Your task to perform on an android device: turn smart compose on in the gmail app Image 0: 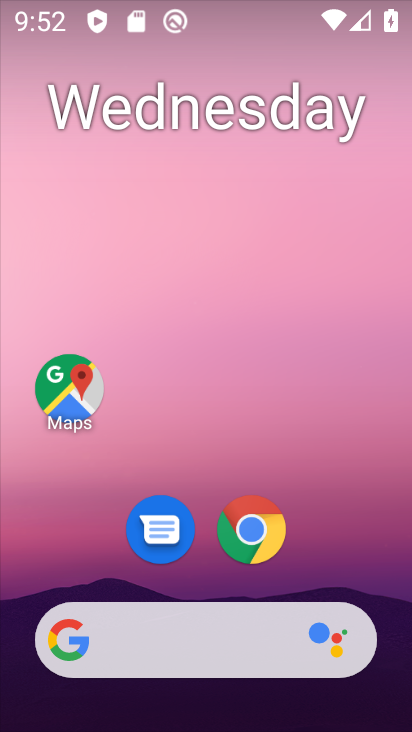
Step 0: drag from (248, 566) to (247, 154)
Your task to perform on an android device: turn smart compose on in the gmail app Image 1: 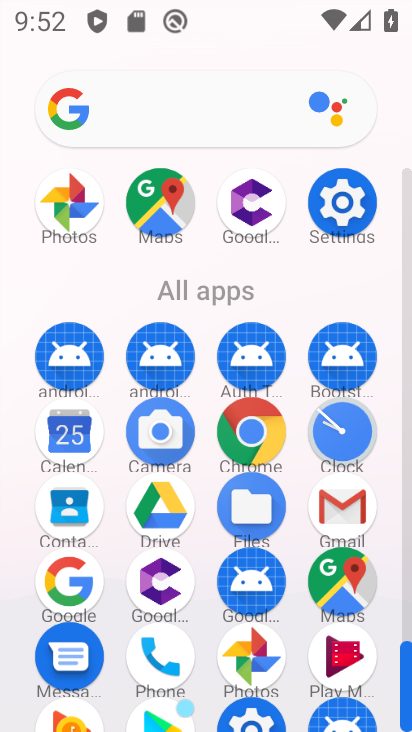
Step 1: drag from (309, 301) to (280, 194)
Your task to perform on an android device: turn smart compose on in the gmail app Image 2: 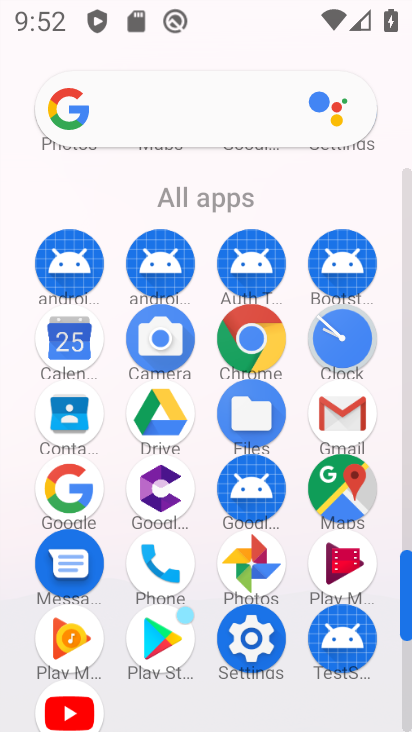
Step 2: click (339, 416)
Your task to perform on an android device: turn smart compose on in the gmail app Image 3: 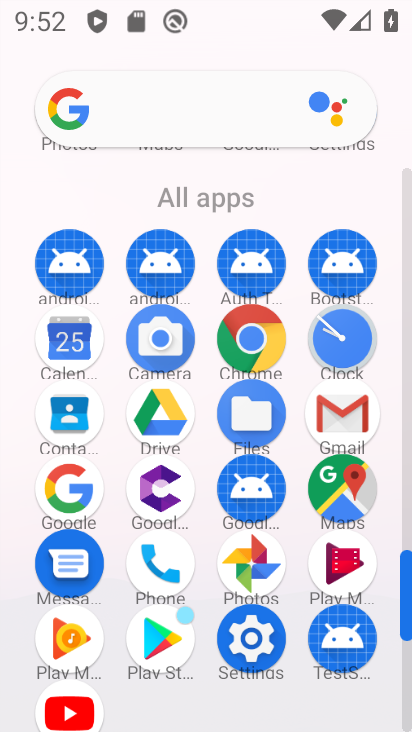
Step 3: click (338, 417)
Your task to perform on an android device: turn smart compose on in the gmail app Image 4: 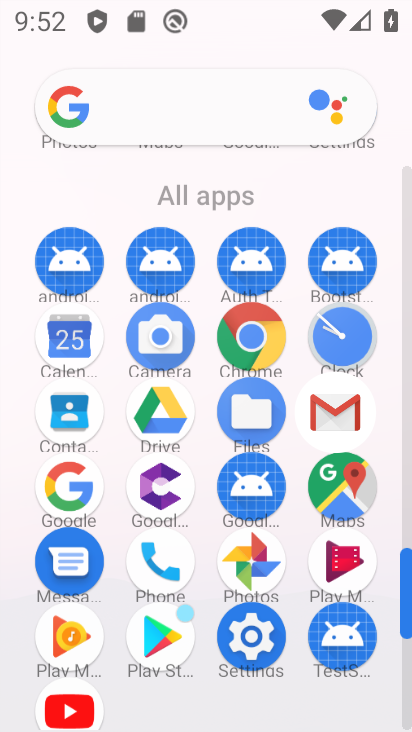
Step 4: click (338, 414)
Your task to perform on an android device: turn smart compose on in the gmail app Image 5: 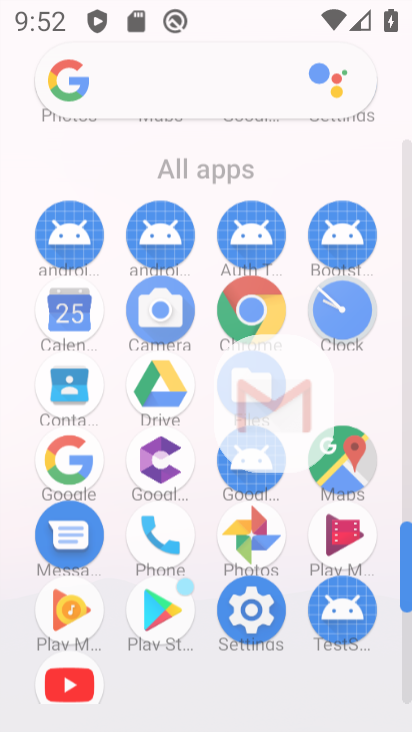
Step 5: click (338, 414)
Your task to perform on an android device: turn smart compose on in the gmail app Image 6: 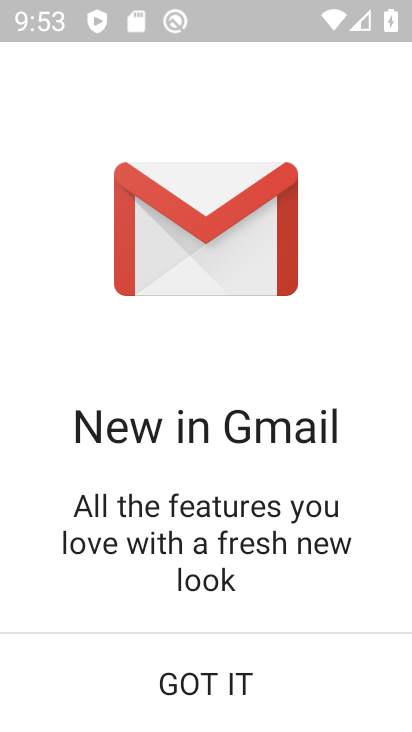
Step 6: click (215, 693)
Your task to perform on an android device: turn smart compose on in the gmail app Image 7: 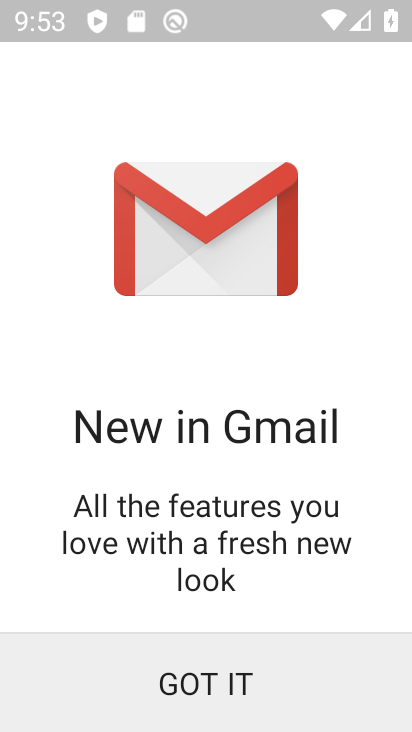
Step 7: click (215, 688)
Your task to perform on an android device: turn smart compose on in the gmail app Image 8: 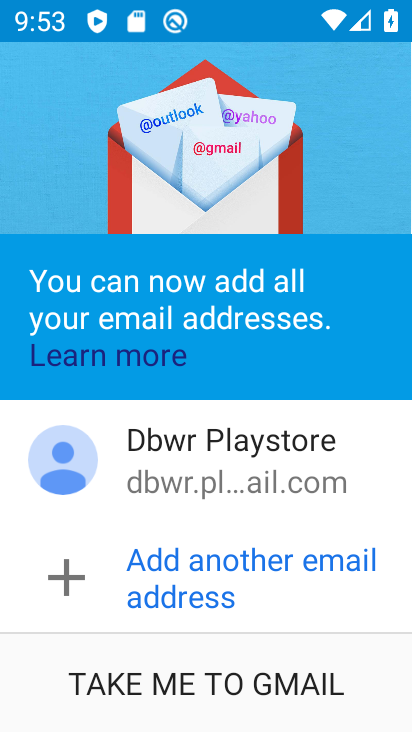
Step 8: click (215, 671)
Your task to perform on an android device: turn smart compose on in the gmail app Image 9: 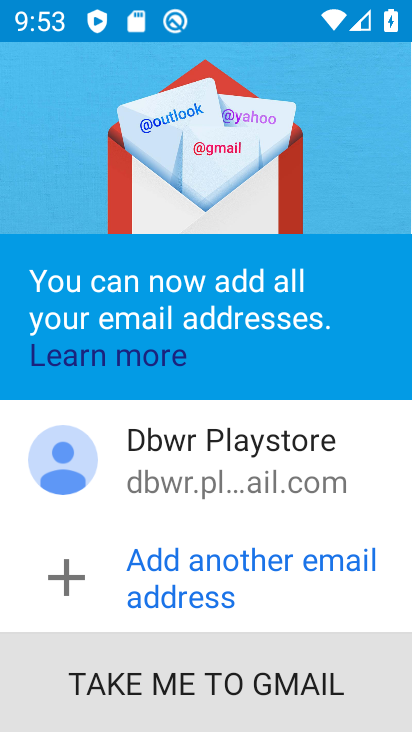
Step 9: click (214, 672)
Your task to perform on an android device: turn smart compose on in the gmail app Image 10: 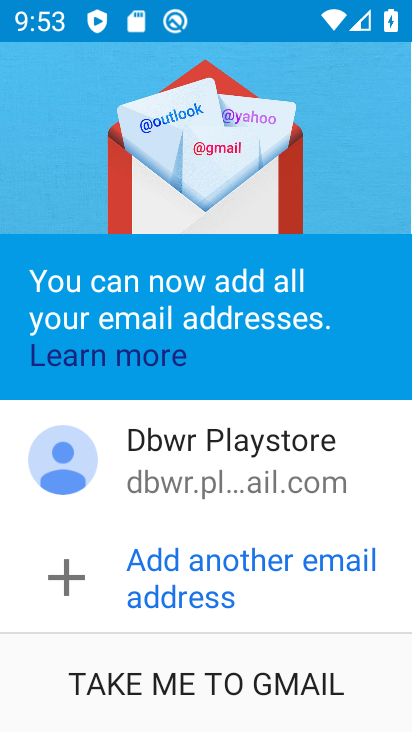
Step 10: click (213, 665)
Your task to perform on an android device: turn smart compose on in the gmail app Image 11: 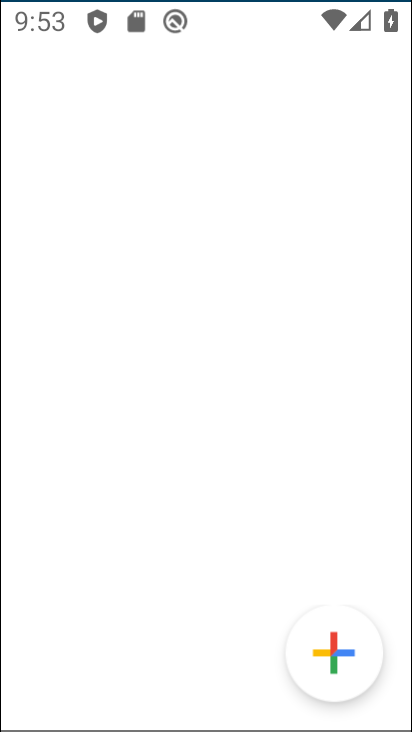
Step 11: click (213, 665)
Your task to perform on an android device: turn smart compose on in the gmail app Image 12: 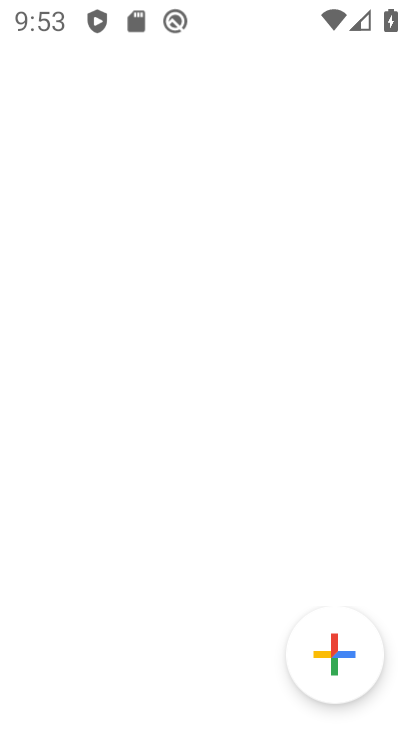
Step 12: click (213, 665)
Your task to perform on an android device: turn smart compose on in the gmail app Image 13: 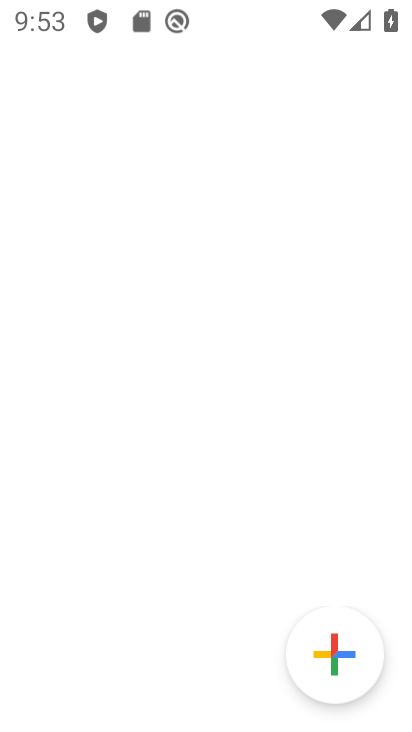
Step 13: click (213, 665)
Your task to perform on an android device: turn smart compose on in the gmail app Image 14: 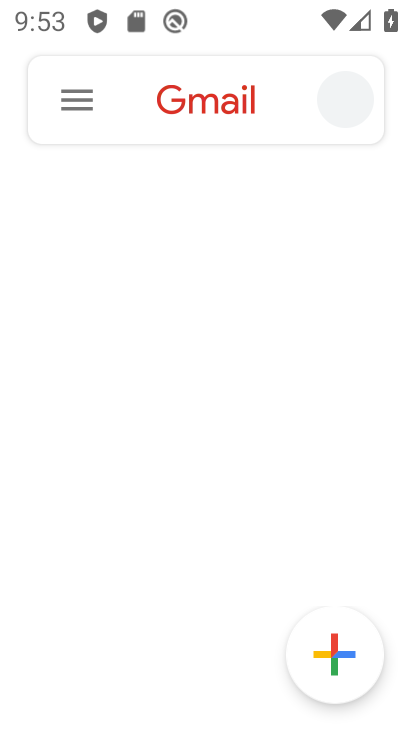
Step 14: click (213, 665)
Your task to perform on an android device: turn smart compose on in the gmail app Image 15: 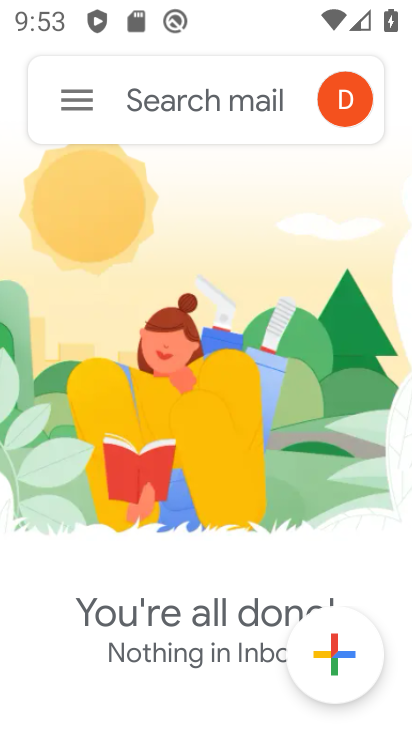
Step 15: press back button
Your task to perform on an android device: turn smart compose on in the gmail app Image 16: 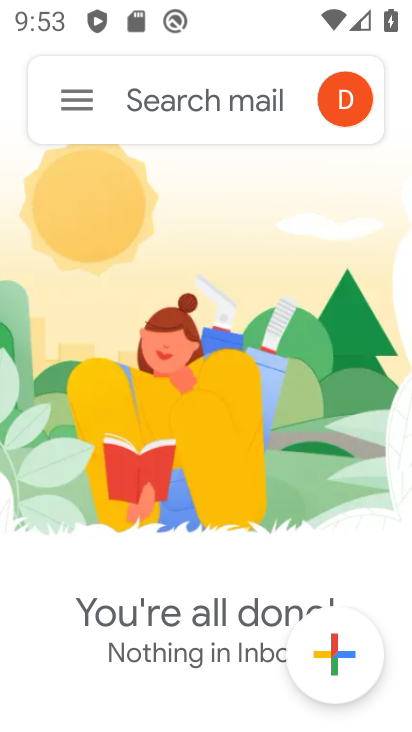
Step 16: press back button
Your task to perform on an android device: turn smart compose on in the gmail app Image 17: 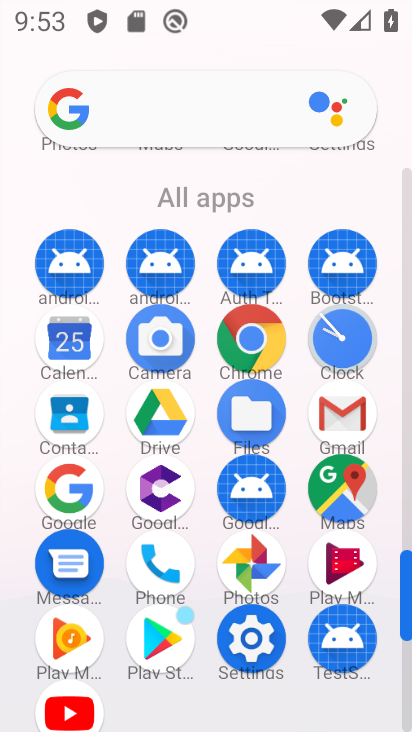
Step 17: press back button
Your task to perform on an android device: turn smart compose on in the gmail app Image 18: 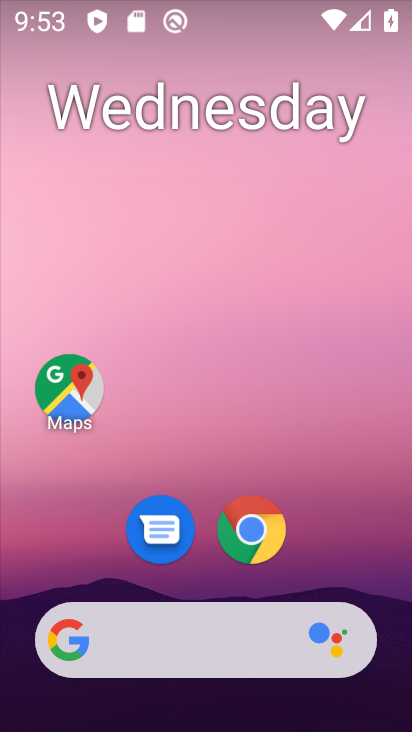
Step 18: drag from (231, 644) to (68, 109)
Your task to perform on an android device: turn smart compose on in the gmail app Image 19: 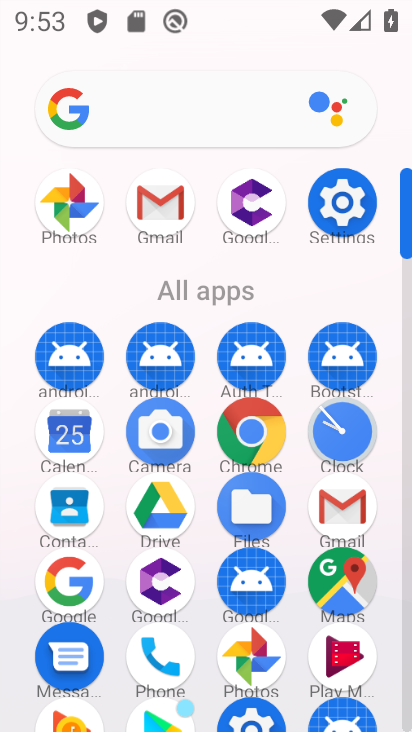
Step 19: click (357, 517)
Your task to perform on an android device: turn smart compose on in the gmail app Image 20: 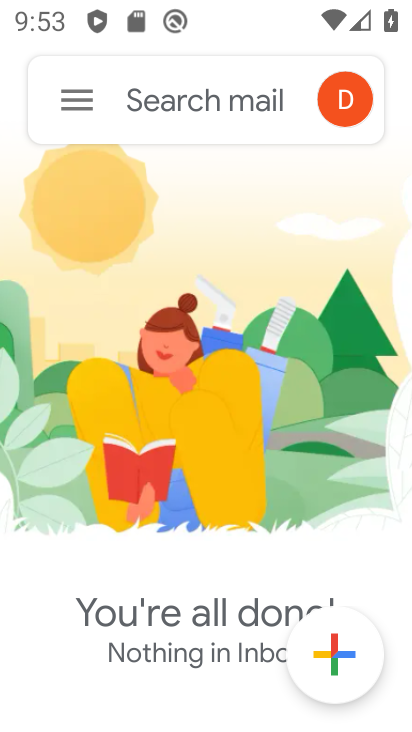
Step 20: press back button
Your task to perform on an android device: turn smart compose on in the gmail app Image 21: 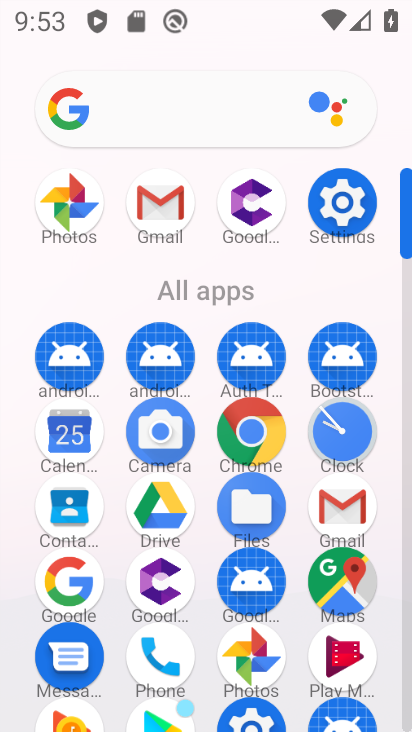
Step 21: click (355, 489)
Your task to perform on an android device: turn smart compose on in the gmail app Image 22: 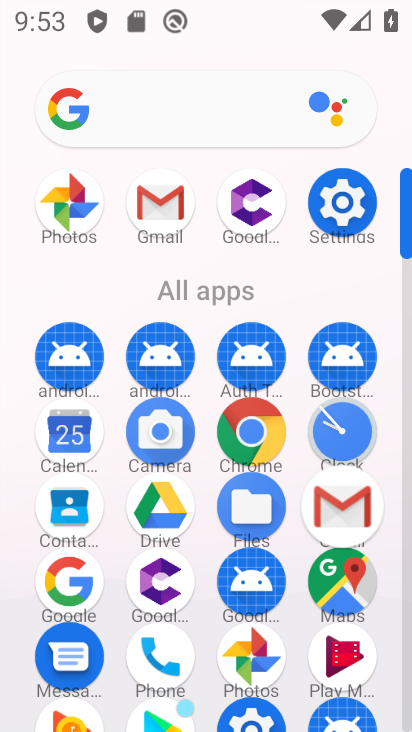
Step 22: click (355, 490)
Your task to perform on an android device: turn smart compose on in the gmail app Image 23: 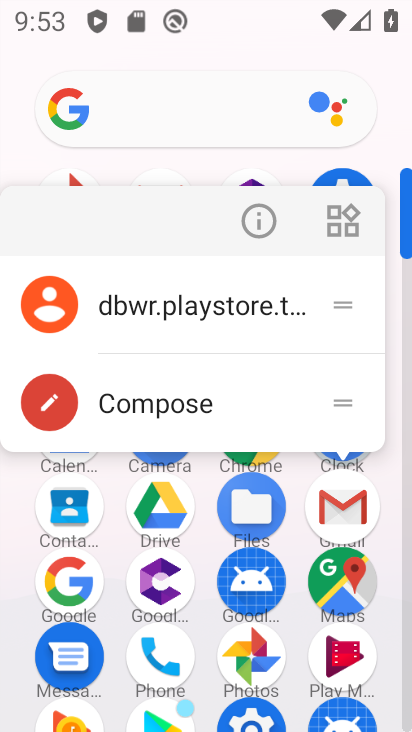
Step 23: click (355, 491)
Your task to perform on an android device: turn smart compose on in the gmail app Image 24: 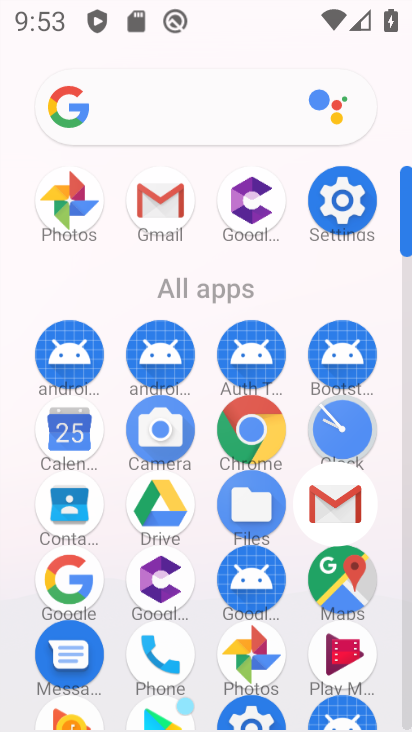
Step 24: click (347, 500)
Your task to perform on an android device: turn smart compose on in the gmail app Image 25: 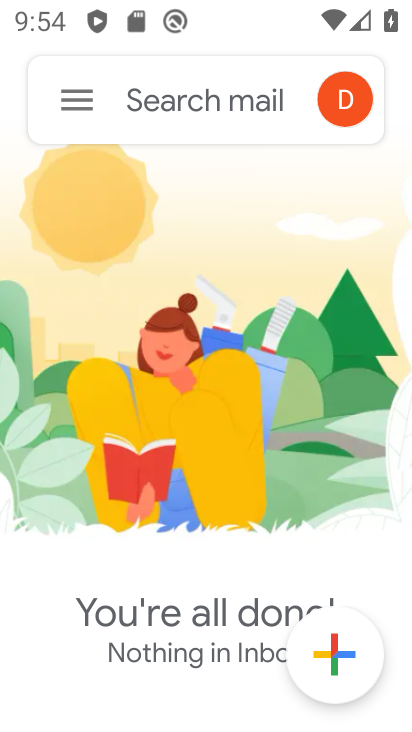
Step 25: click (82, 94)
Your task to perform on an android device: turn smart compose on in the gmail app Image 26: 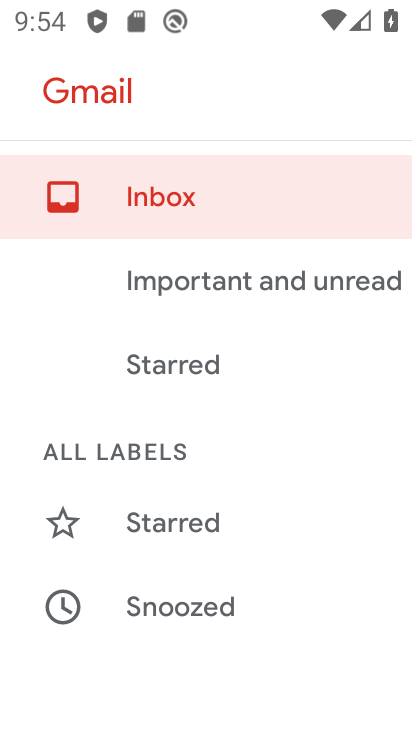
Step 26: drag from (201, 527) to (190, 260)
Your task to perform on an android device: turn smart compose on in the gmail app Image 27: 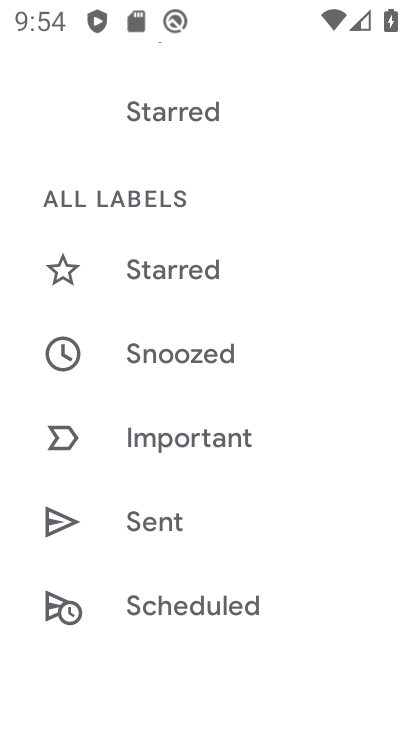
Step 27: drag from (227, 407) to (226, 168)
Your task to perform on an android device: turn smart compose on in the gmail app Image 28: 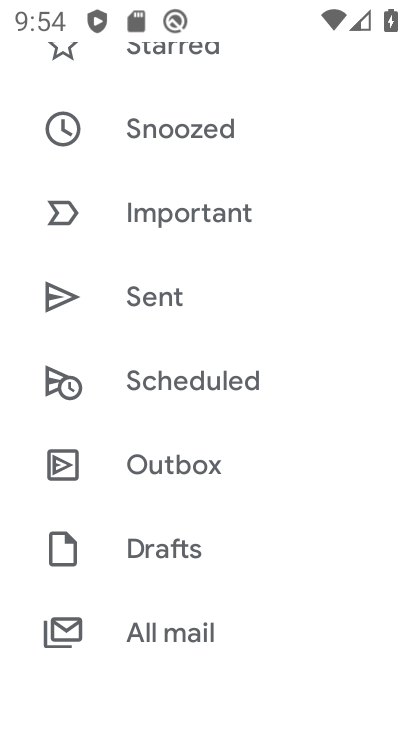
Step 28: drag from (177, 513) to (180, 25)
Your task to perform on an android device: turn smart compose on in the gmail app Image 29: 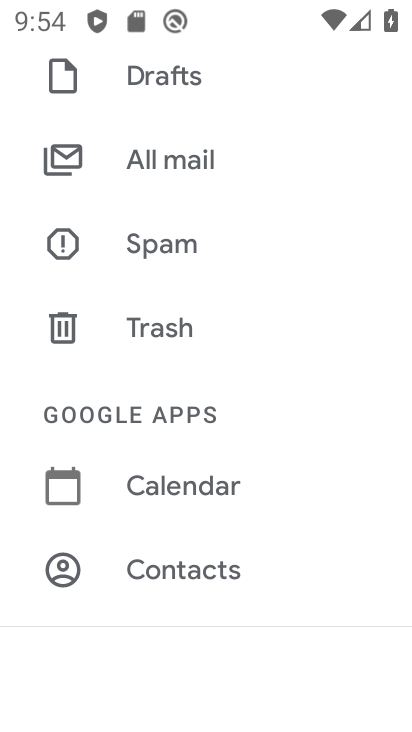
Step 29: click (103, 16)
Your task to perform on an android device: turn smart compose on in the gmail app Image 30: 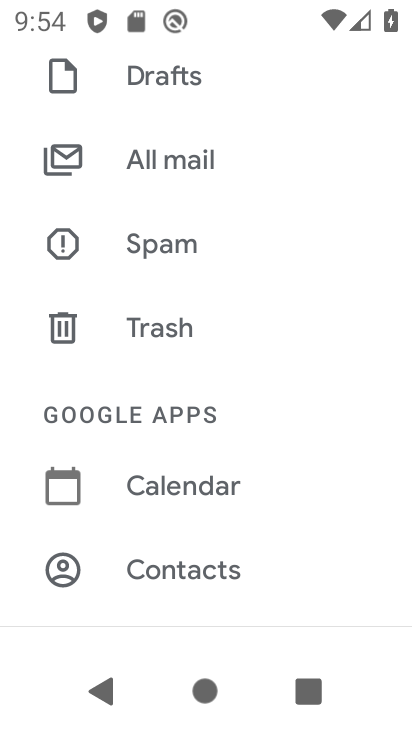
Step 30: drag from (170, 544) to (214, 42)
Your task to perform on an android device: turn smart compose on in the gmail app Image 31: 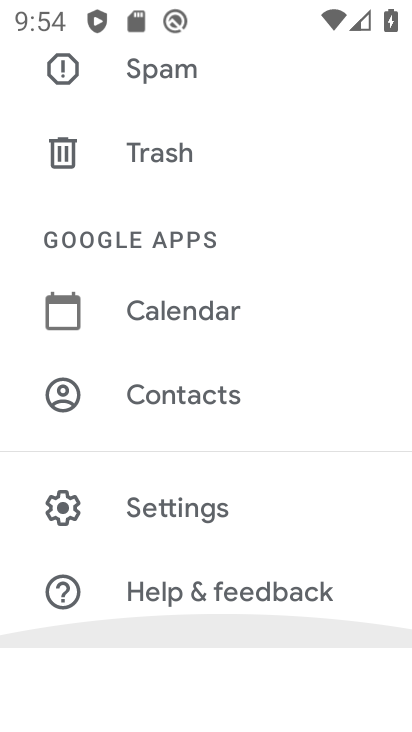
Step 31: drag from (283, 436) to (334, 45)
Your task to perform on an android device: turn smart compose on in the gmail app Image 32: 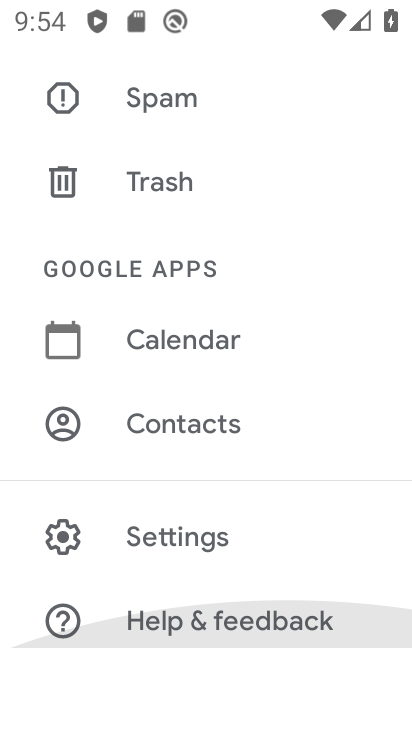
Step 32: drag from (232, 428) to (232, 48)
Your task to perform on an android device: turn smart compose on in the gmail app Image 33: 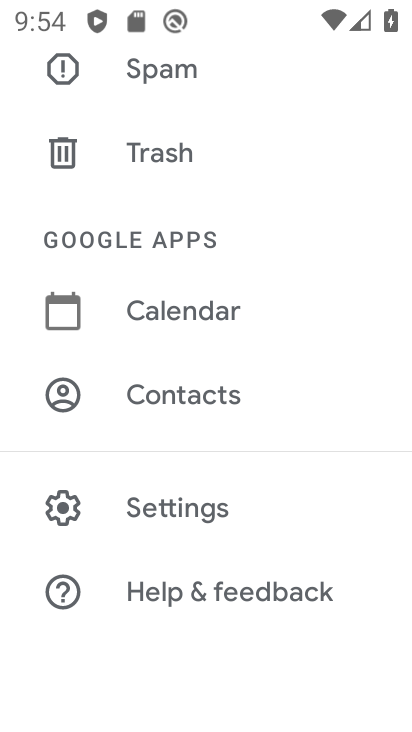
Step 33: click (169, 507)
Your task to perform on an android device: turn smart compose on in the gmail app Image 34: 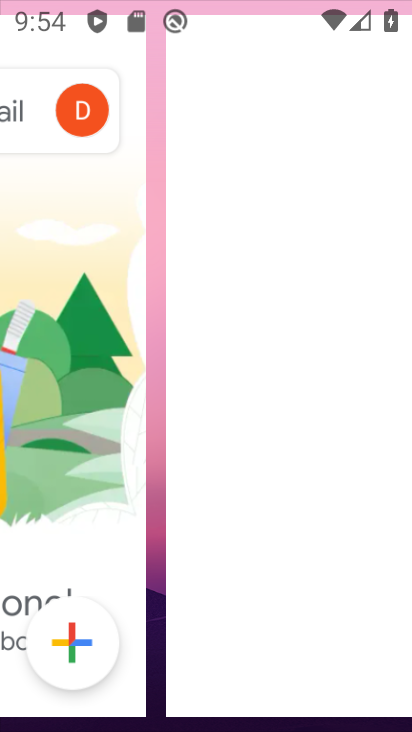
Step 34: click (178, 507)
Your task to perform on an android device: turn smart compose on in the gmail app Image 35: 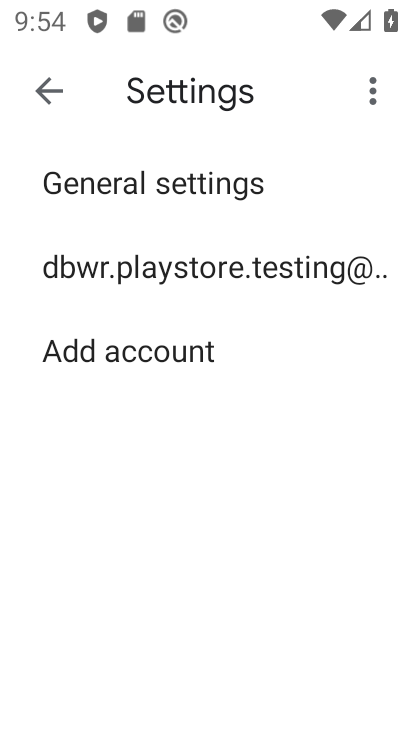
Step 35: click (167, 277)
Your task to perform on an android device: turn smart compose on in the gmail app Image 36: 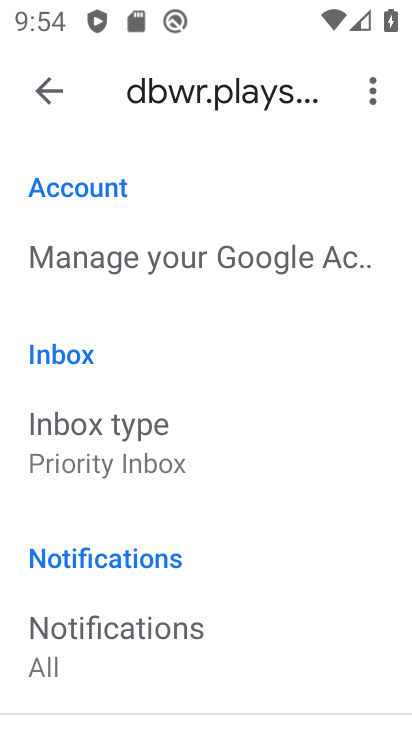
Step 36: drag from (149, 597) to (98, 188)
Your task to perform on an android device: turn smart compose on in the gmail app Image 37: 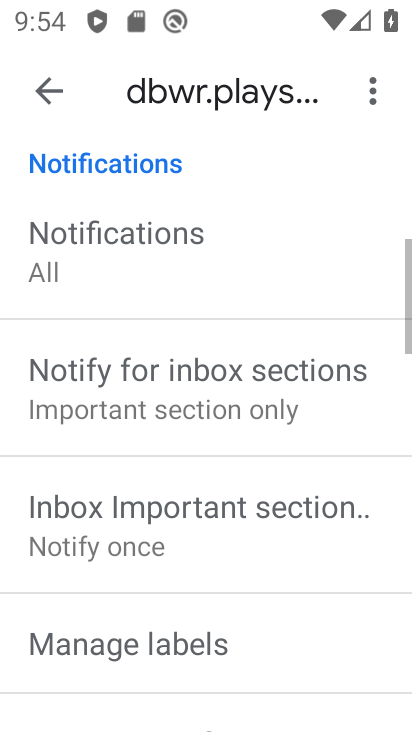
Step 37: drag from (174, 398) to (163, 37)
Your task to perform on an android device: turn smart compose on in the gmail app Image 38: 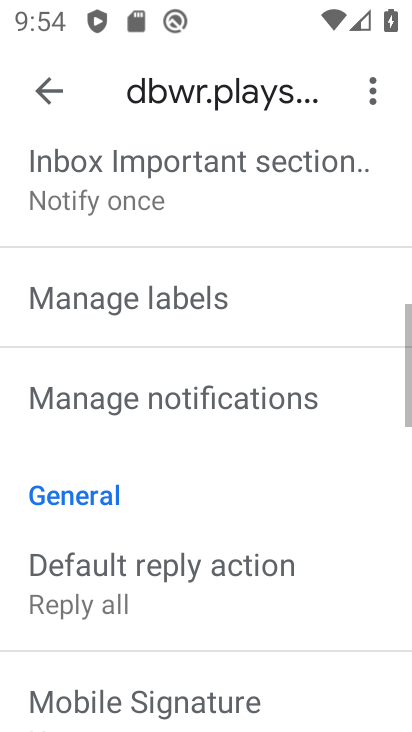
Step 38: drag from (228, 371) to (208, 155)
Your task to perform on an android device: turn smart compose on in the gmail app Image 39: 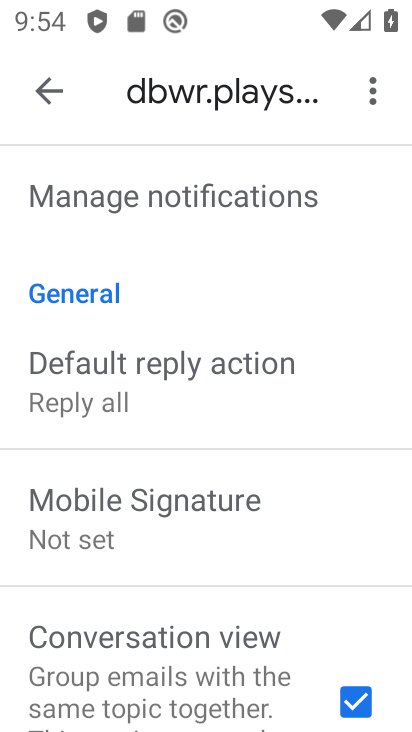
Step 39: drag from (220, 572) to (116, 55)
Your task to perform on an android device: turn smart compose on in the gmail app Image 40: 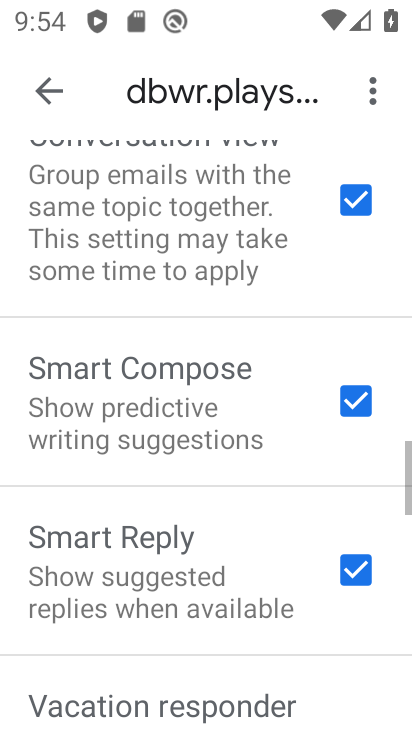
Step 40: drag from (170, 429) to (131, 45)
Your task to perform on an android device: turn smart compose on in the gmail app Image 41: 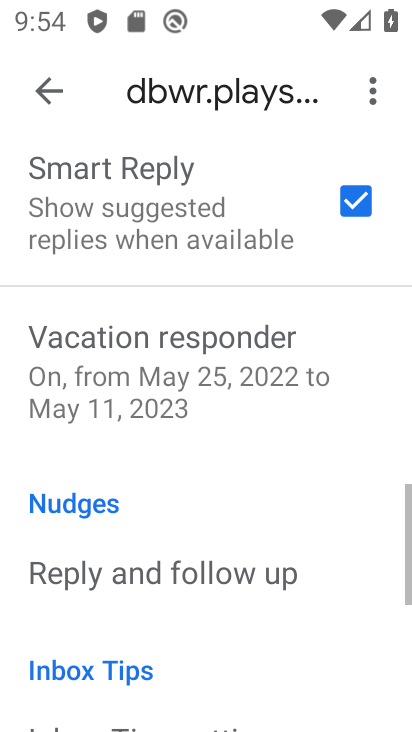
Step 41: drag from (190, 489) to (153, 0)
Your task to perform on an android device: turn smart compose on in the gmail app Image 42: 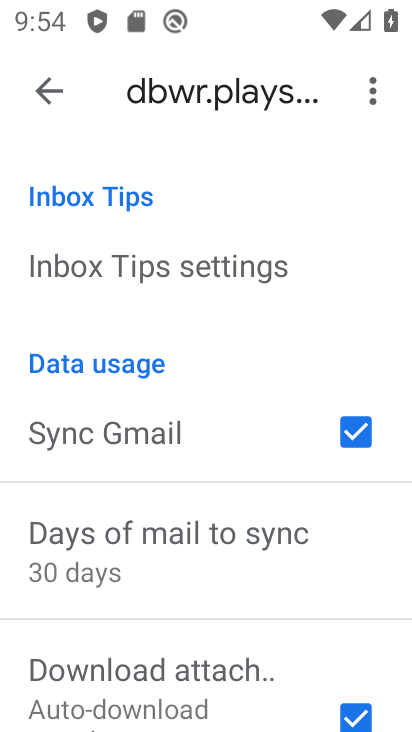
Step 42: drag from (205, 478) to (138, 173)
Your task to perform on an android device: turn smart compose on in the gmail app Image 43: 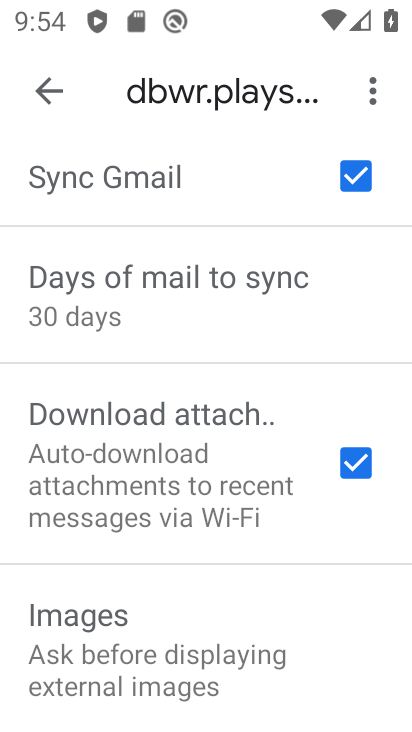
Step 43: drag from (157, 355) to (136, 96)
Your task to perform on an android device: turn smart compose on in the gmail app Image 44: 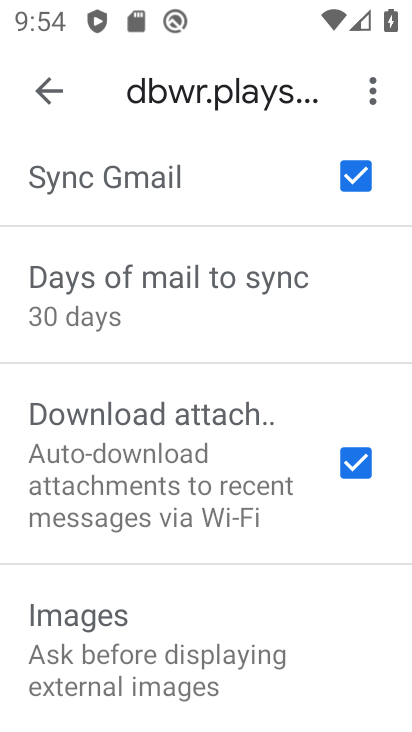
Step 44: drag from (169, 420) to (125, 79)
Your task to perform on an android device: turn smart compose on in the gmail app Image 45: 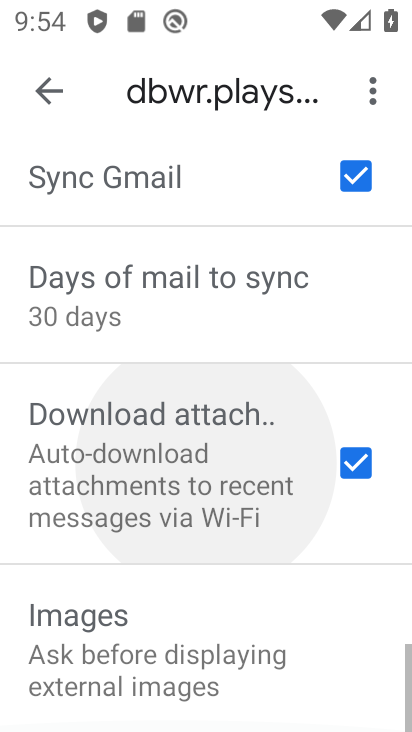
Step 45: drag from (167, 508) to (114, 16)
Your task to perform on an android device: turn smart compose on in the gmail app Image 46: 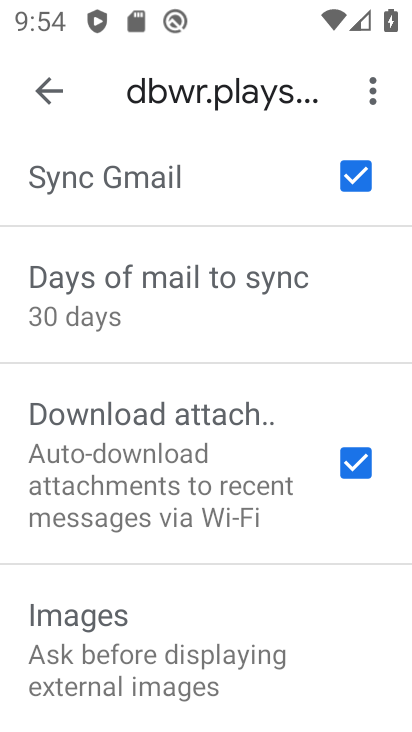
Step 46: click (153, 79)
Your task to perform on an android device: turn smart compose on in the gmail app Image 47: 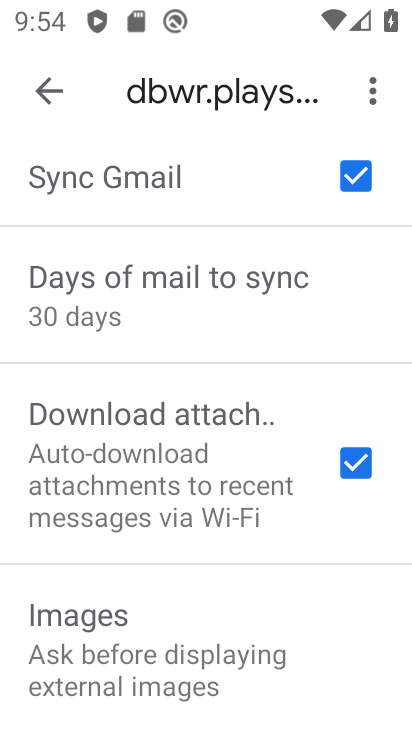
Step 47: click (85, 108)
Your task to perform on an android device: turn smart compose on in the gmail app Image 48: 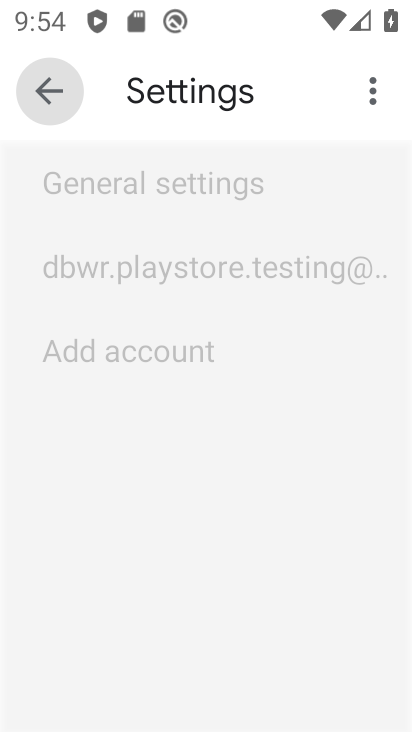
Step 48: drag from (160, 150) to (187, 24)
Your task to perform on an android device: turn smart compose on in the gmail app Image 49: 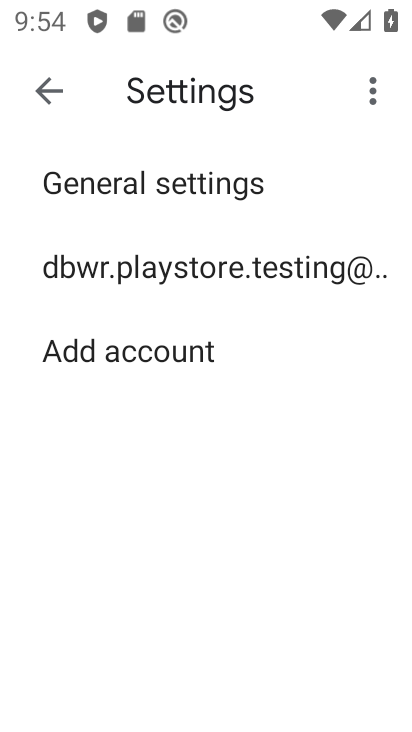
Step 49: click (173, 270)
Your task to perform on an android device: turn smart compose on in the gmail app Image 50: 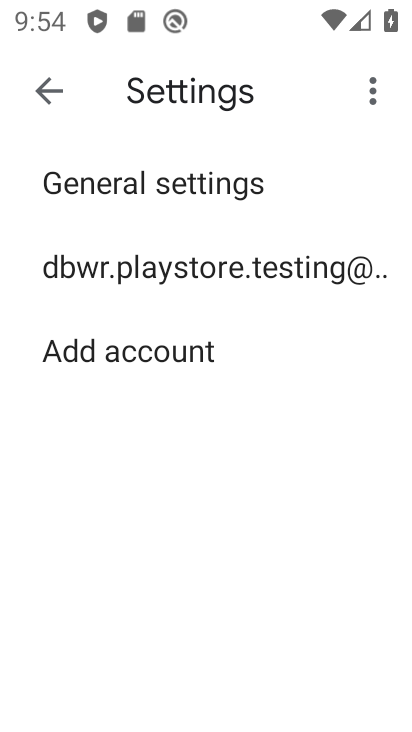
Step 50: click (173, 270)
Your task to perform on an android device: turn smart compose on in the gmail app Image 51: 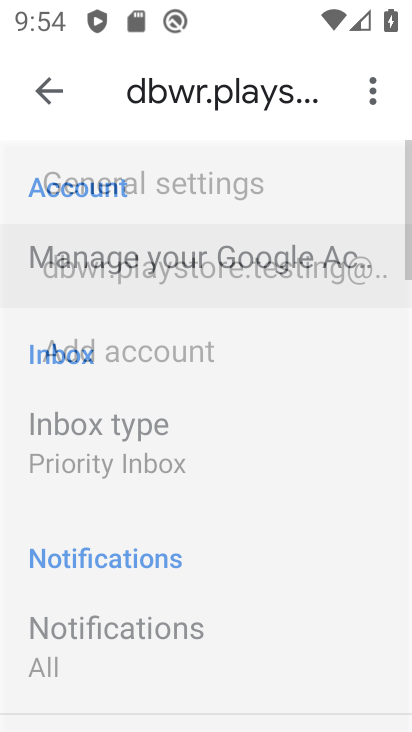
Step 51: click (170, 269)
Your task to perform on an android device: turn smart compose on in the gmail app Image 52: 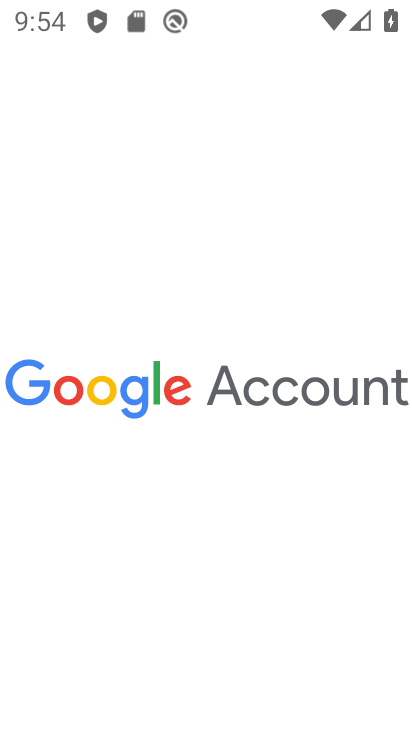
Step 52: drag from (108, 497) to (149, 62)
Your task to perform on an android device: turn smart compose on in the gmail app Image 53: 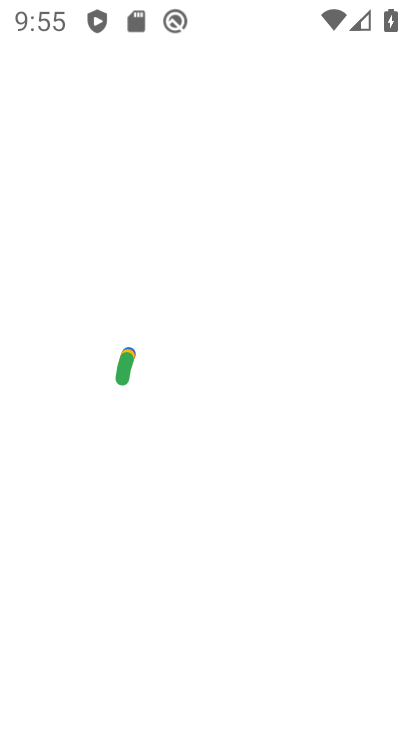
Step 53: drag from (233, 509) to (154, 0)
Your task to perform on an android device: turn smart compose on in the gmail app Image 54: 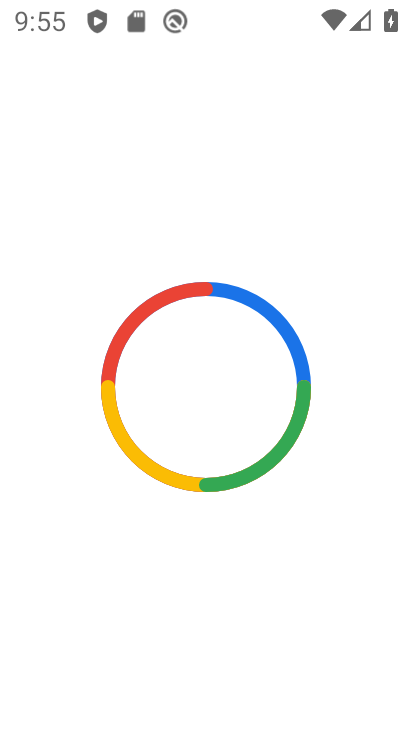
Step 54: drag from (228, 584) to (217, 76)
Your task to perform on an android device: turn smart compose on in the gmail app Image 55: 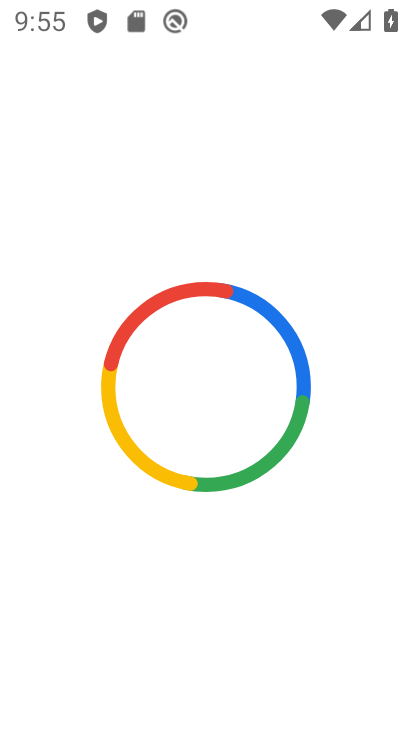
Step 55: drag from (173, 424) to (182, 120)
Your task to perform on an android device: turn smart compose on in the gmail app Image 56: 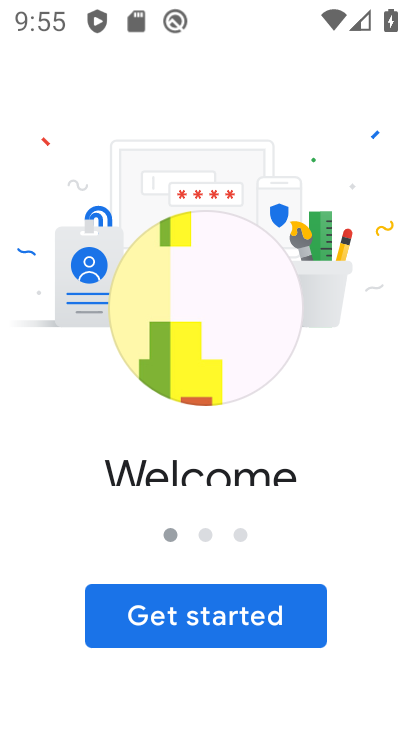
Step 56: press back button
Your task to perform on an android device: turn smart compose on in the gmail app Image 57: 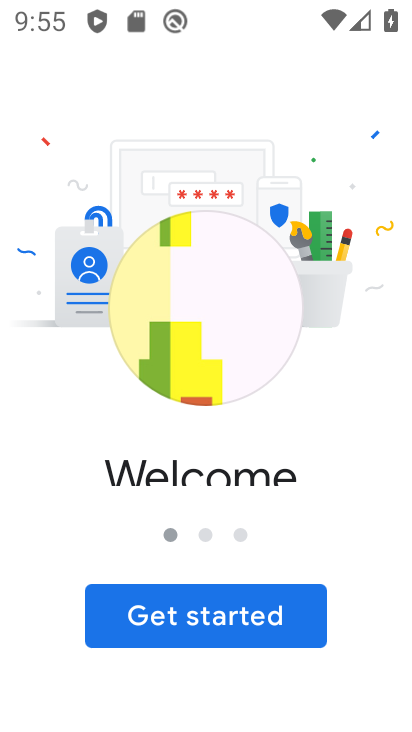
Step 57: press back button
Your task to perform on an android device: turn smart compose on in the gmail app Image 58: 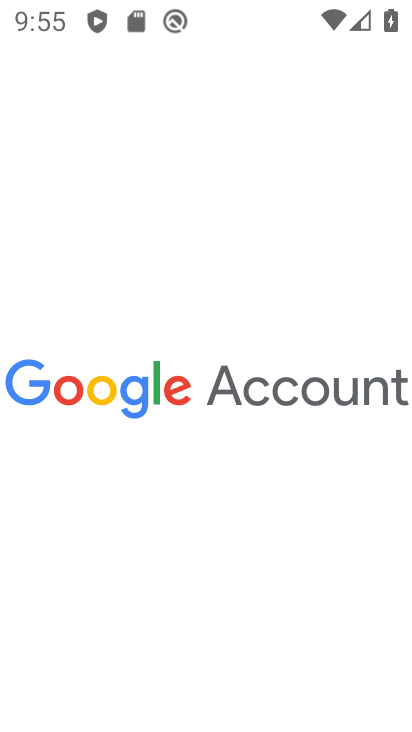
Step 58: press back button
Your task to perform on an android device: turn smart compose on in the gmail app Image 59: 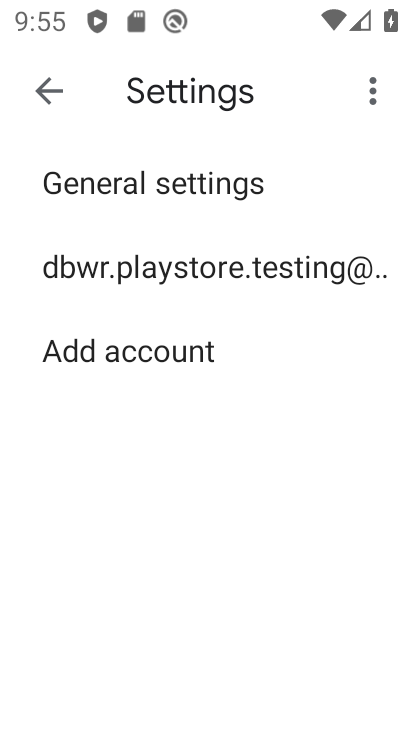
Step 59: drag from (195, 510) to (179, 409)
Your task to perform on an android device: turn smart compose on in the gmail app Image 60: 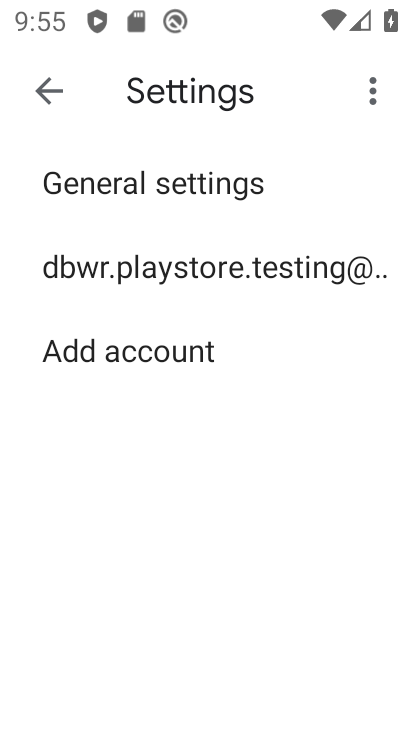
Step 60: click (169, 274)
Your task to perform on an android device: turn smart compose on in the gmail app Image 61: 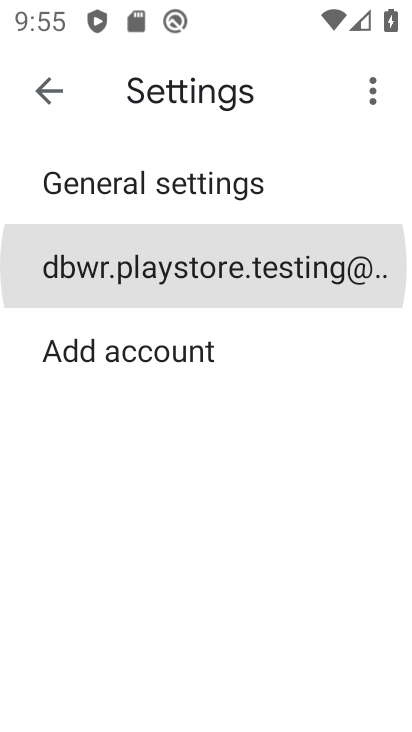
Step 61: click (170, 273)
Your task to perform on an android device: turn smart compose on in the gmail app Image 62: 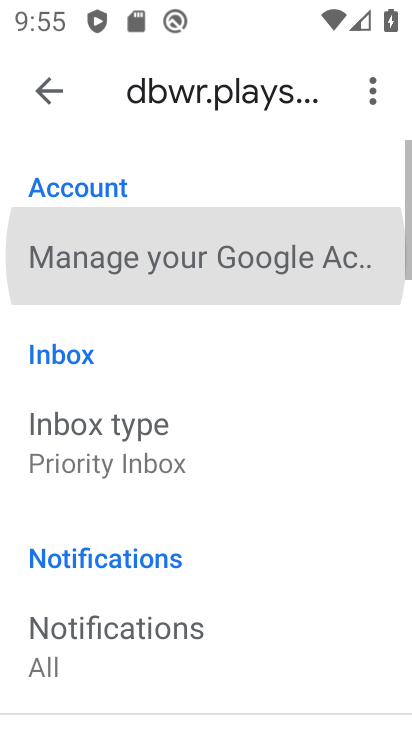
Step 62: click (170, 273)
Your task to perform on an android device: turn smart compose on in the gmail app Image 63: 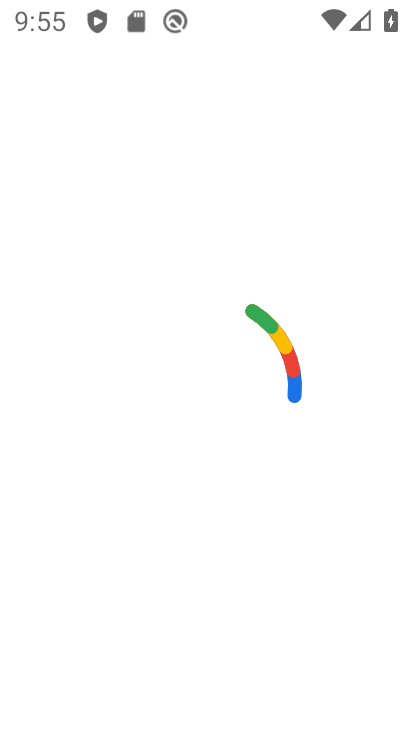
Step 63: drag from (96, 95) to (166, 70)
Your task to perform on an android device: turn smart compose on in the gmail app Image 64: 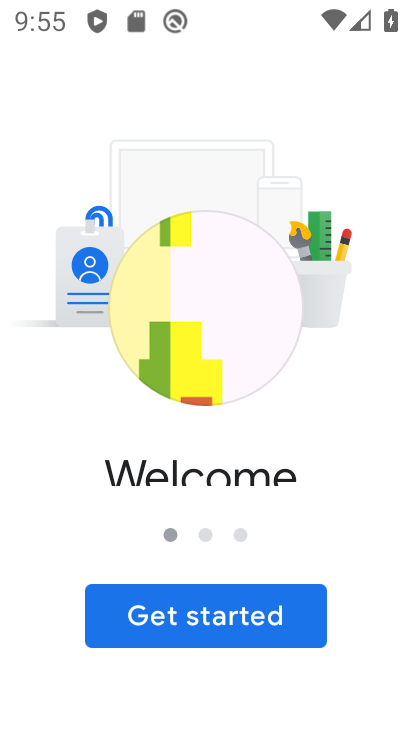
Step 64: drag from (213, 255) to (209, 211)
Your task to perform on an android device: turn smart compose on in the gmail app Image 65: 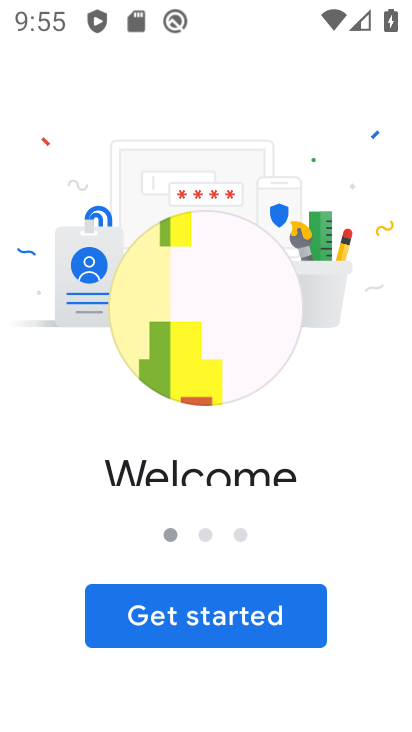
Step 65: click (236, 597)
Your task to perform on an android device: turn smart compose on in the gmail app Image 66: 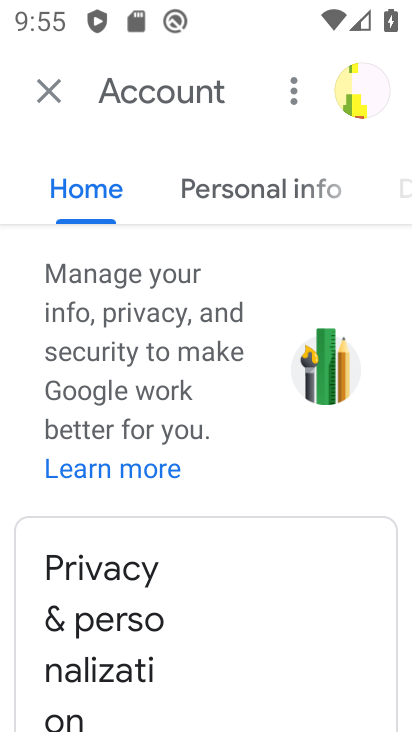
Step 66: click (40, 87)
Your task to perform on an android device: turn smart compose on in the gmail app Image 67: 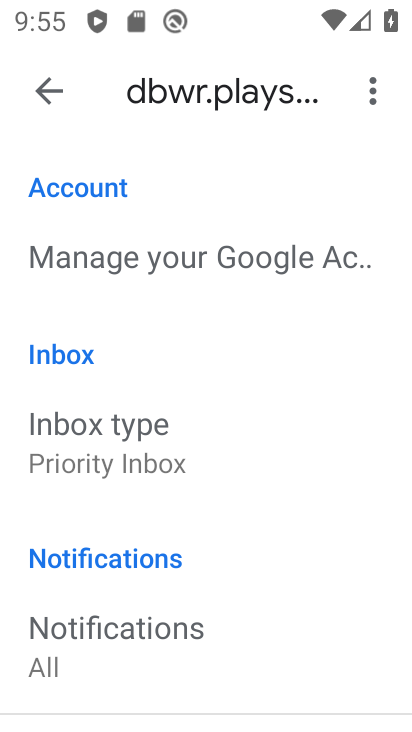
Step 67: drag from (116, 650) to (104, 291)
Your task to perform on an android device: turn smart compose on in the gmail app Image 68: 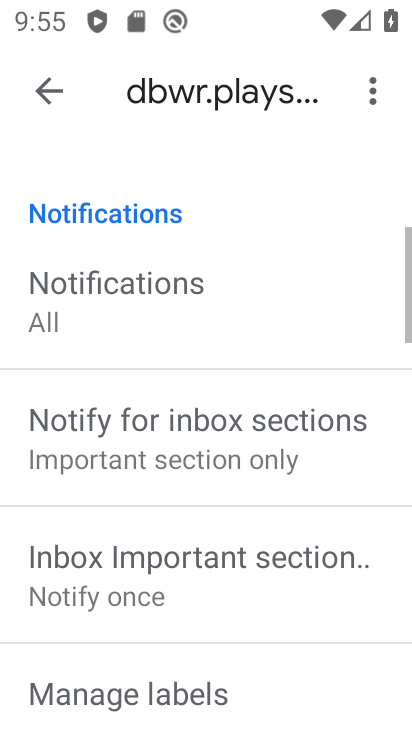
Step 68: drag from (110, 575) to (80, 109)
Your task to perform on an android device: turn smart compose on in the gmail app Image 69: 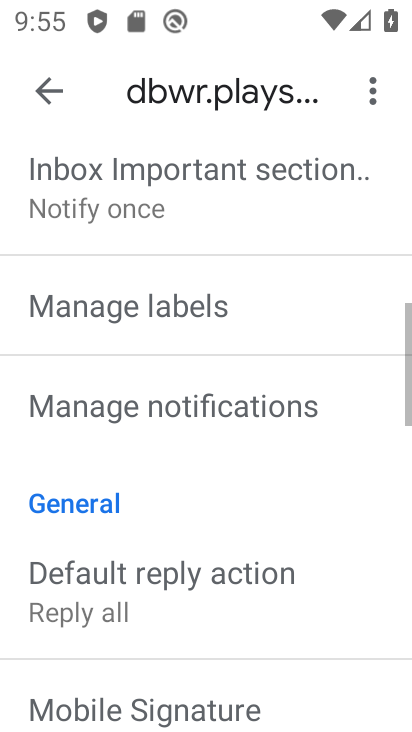
Step 69: drag from (98, 498) to (98, 153)
Your task to perform on an android device: turn smart compose on in the gmail app Image 70: 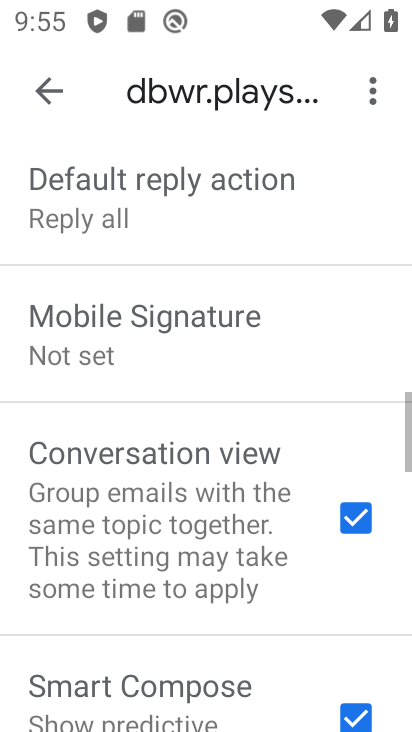
Step 70: drag from (115, 475) to (97, 268)
Your task to perform on an android device: turn smart compose on in the gmail app Image 71: 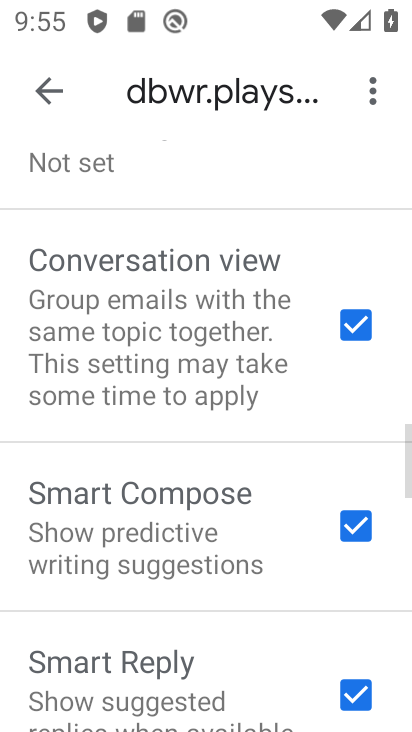
Step 71: drag from (136, 483) to (133, 239)
Your task to perform on an android device: turn smart compose on in the gmail app Image 72: 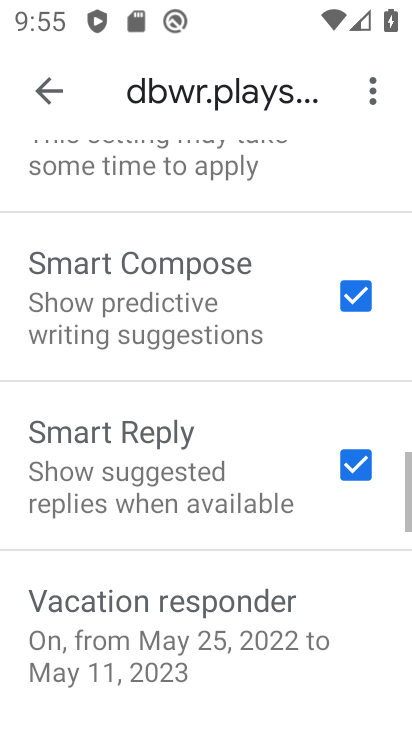
Step 72: drag from (166, 508) to (166, 181)
Your task to perform on an android device: turn smart compose on in the gmail app Image 73: 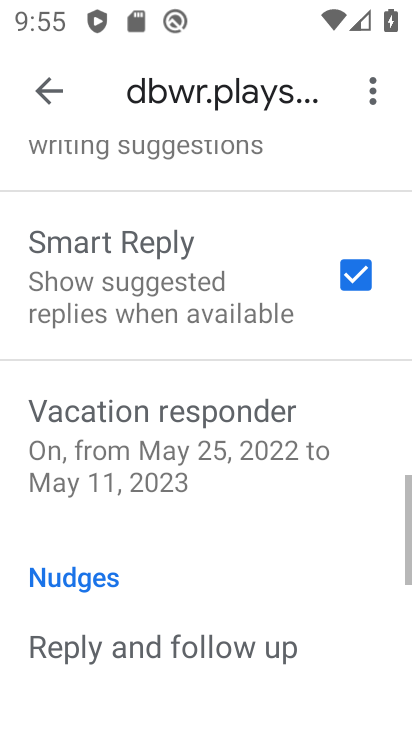
Step 73: drag from (156, 420) to (156, 41)
Your task to perform on an android device: turn smart compose on in the gmail app Image 74: 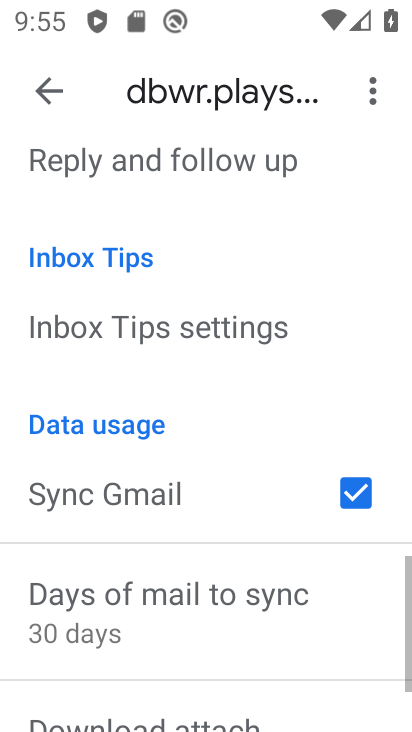
Step 74: drag from (204, 286) to (199, 141)
Your task to perform on an android device: turn smart compose on in the gmail app Image 75: 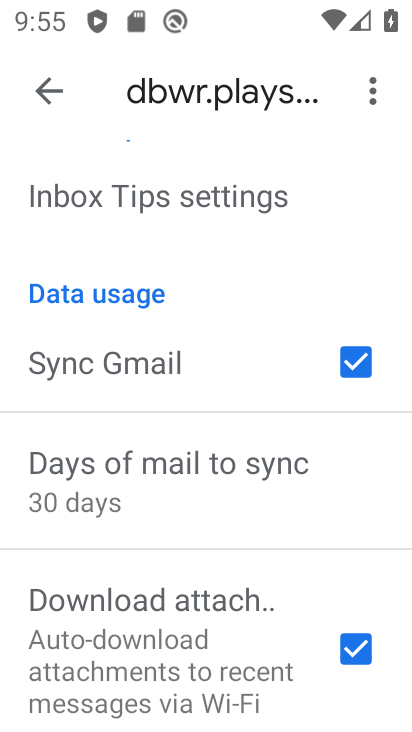
Step 75: drag from (186, 539) to (126, 197)
Your task to perform on an android device: turn smart compose on in the gmail app Image 76: 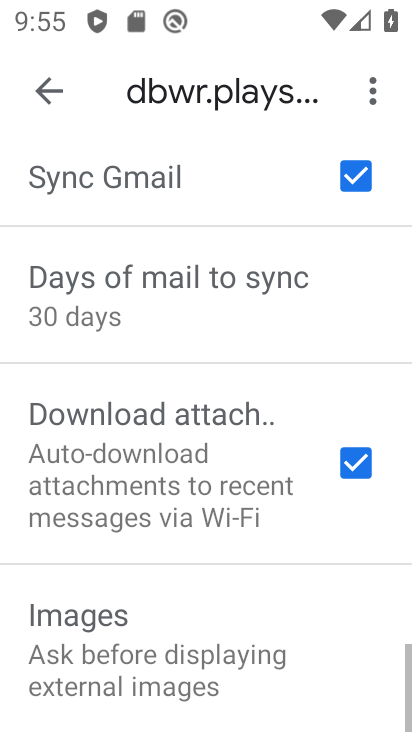
Step 76: drag from (183, 527) to (176, 229)
Your task to perform on an android device: turn smart compose on in the gmail app Image 77: 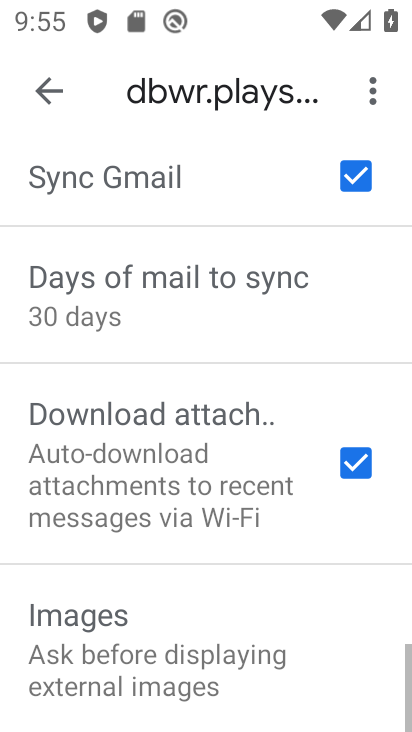
Step 77: drag from (197, 116) to (232, 429)
Your task to perform on an android device: turn smart compose on in the gmail app Image 78: 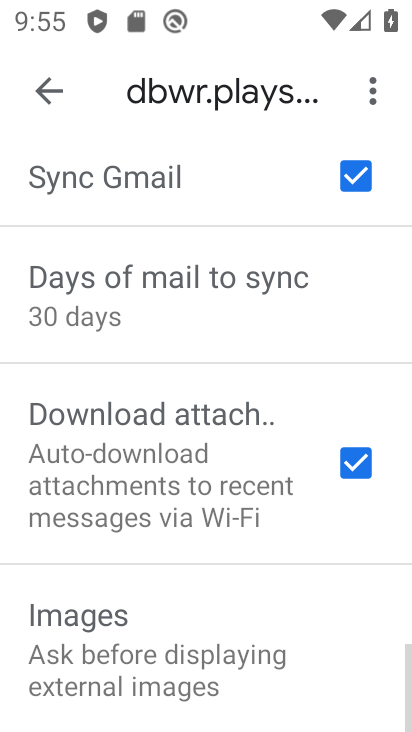
Step 78: drag from (176, 358) to (191, 514)
Your task to perform on an android device: turn smart compose on in the gmail app Image 79: 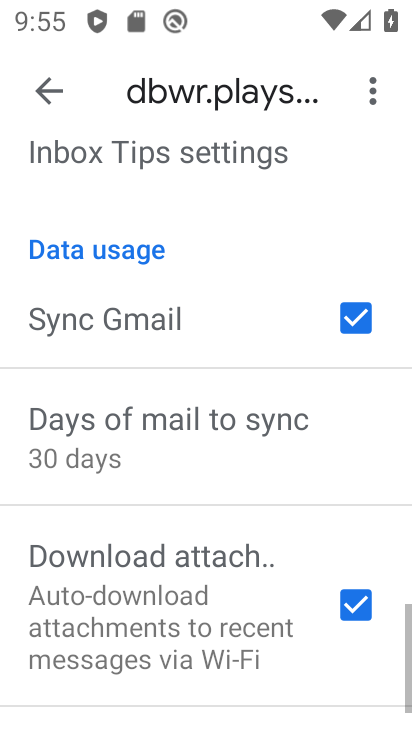
Step 79: drag from (162, 273) to (228, 538)
Your task to perform on an android device: turn smart compose on in the gmail app Image 80: 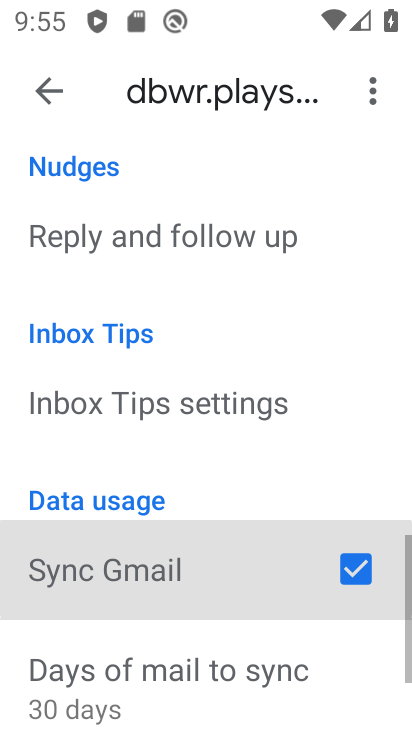
Step 80: drag from (219, 245) to (241, 456)
Your task to perform on an android device: turn smart compose on in the gmail app Image 81: 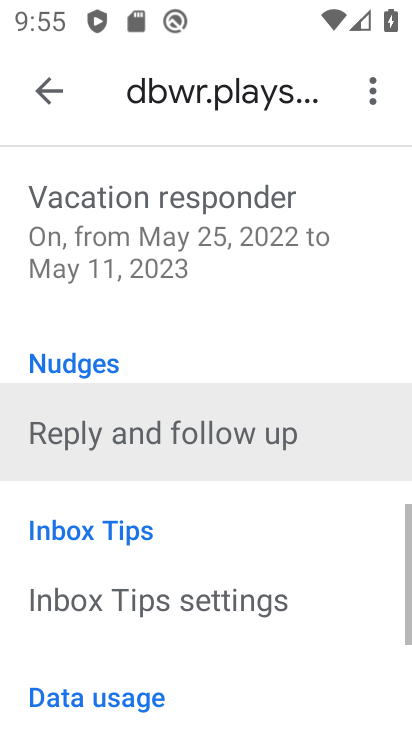
Step 81: drag from (240, 471) to (255, 552)
Your task to perform on an android device: turn smart compose on in the gmail app Image 82: 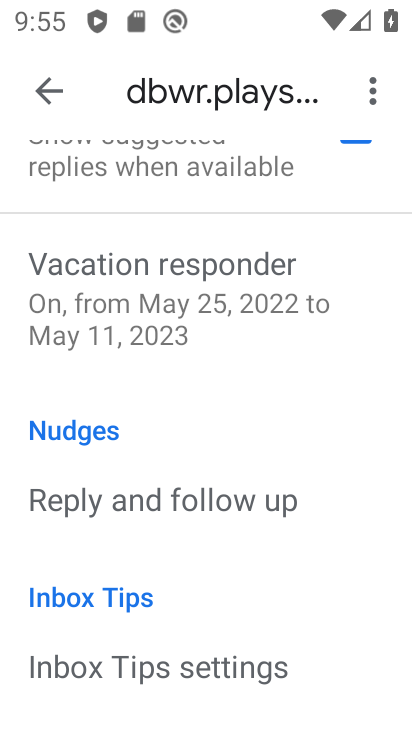
Step 82: drag from (254, 249) to (266, 519)
Your task to perform on an android device: turn smart compose on in the gmail app Image 83: 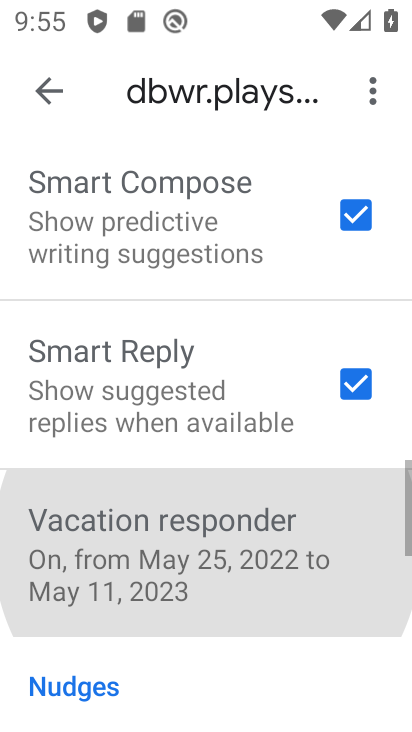
Step 83: drag from (193, 242) to (209, 467)
Your task to perform on an android device: turn smart compose on in the gmail app Image 84: 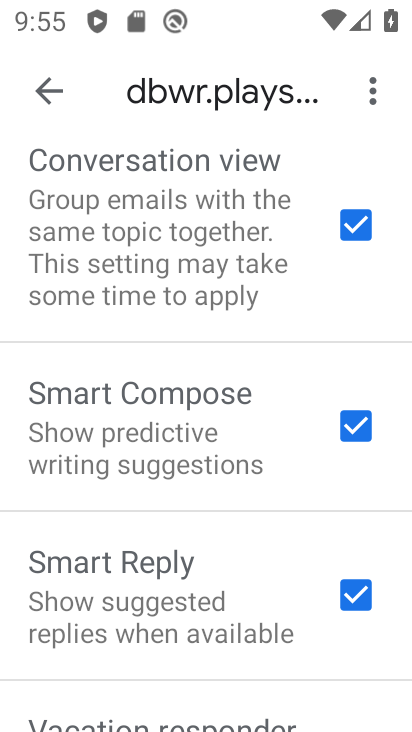
Step 84: click (355, 212)
Your task to perform on an android device: turn smart compose on in the gmail app Image 85: 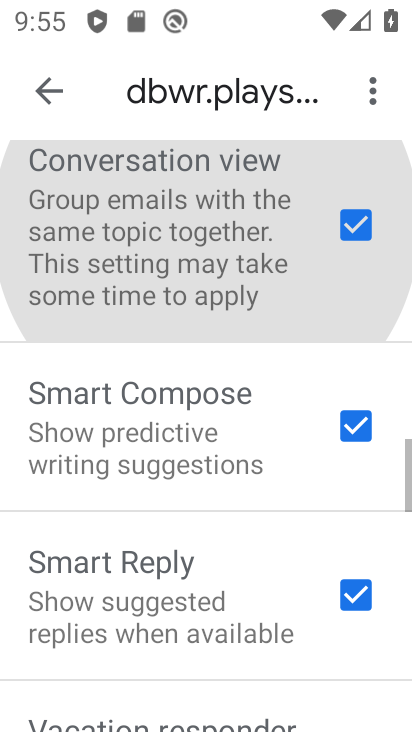
Step 85: click (356, 211)
Your task to perform on an android device: turn smart compose on in the gmail app Image 86: 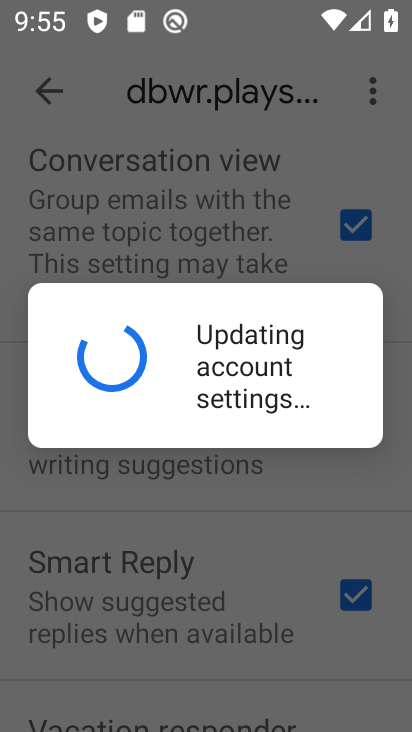
Step 86: click (351, 217)
Your task to perform on an android device: turn smart compose on in the gmail app Image 87: 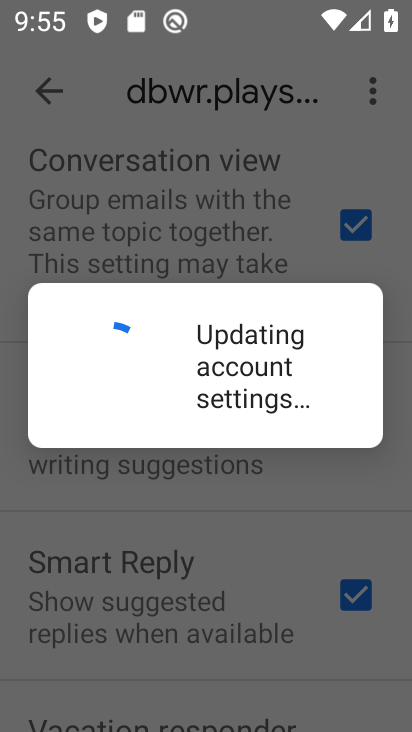
Step 87: click (351, 221)
Your task to perform on an android device: turn smart compose on in the gmail app Image 88: 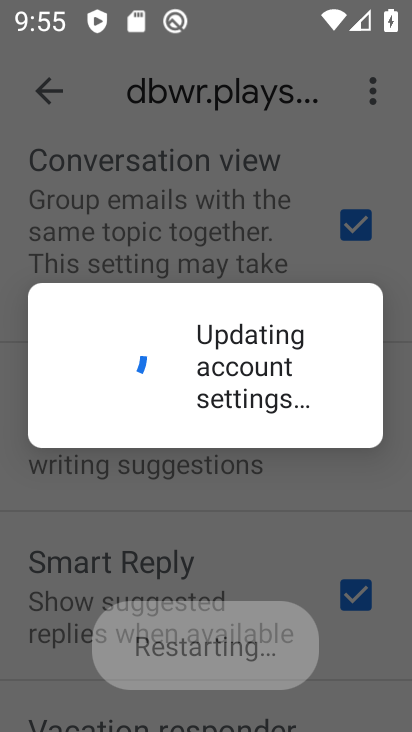
Step 88: click (351, 229)
Your task to perform on an android device: turn smart compose on in the gmail app Image 89: 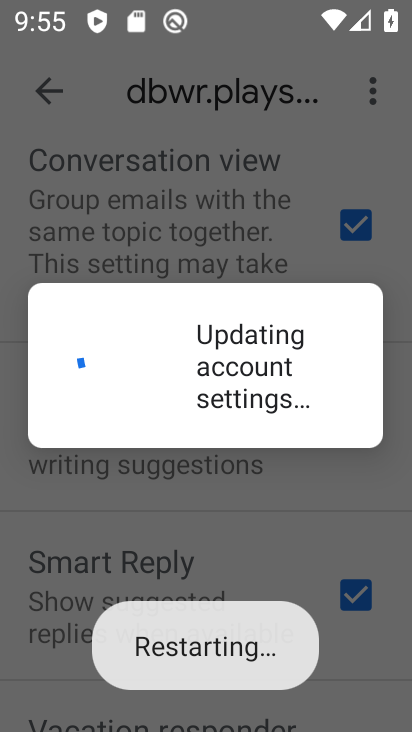
Step 89: click (345, 236)
Your task to perform on an android device: turn smart compose on in the gmail app Image 90: 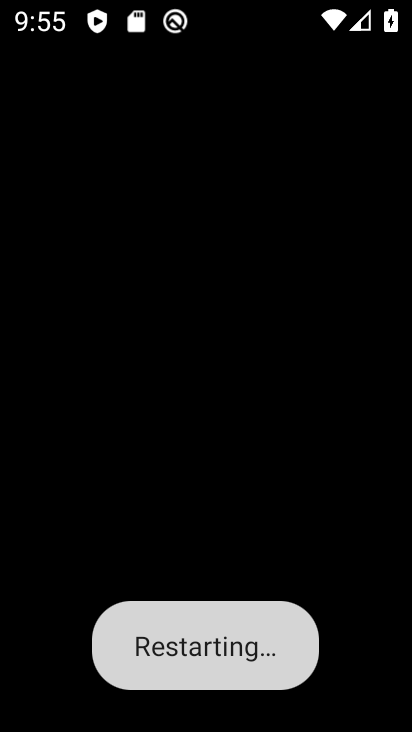
Step 90: click (348, 233)
Your task to perform on an android device: turn smart compose on in the gmail app Image 91: 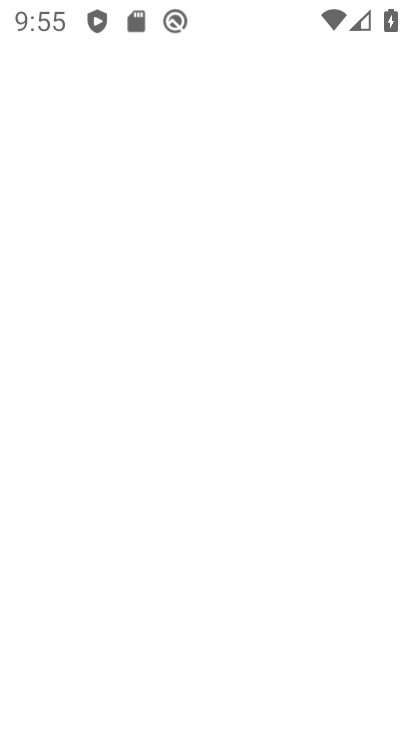
Step 91: task complete